Your task to perform on an android device: turn on priority inbox in the gmail app Image 0: 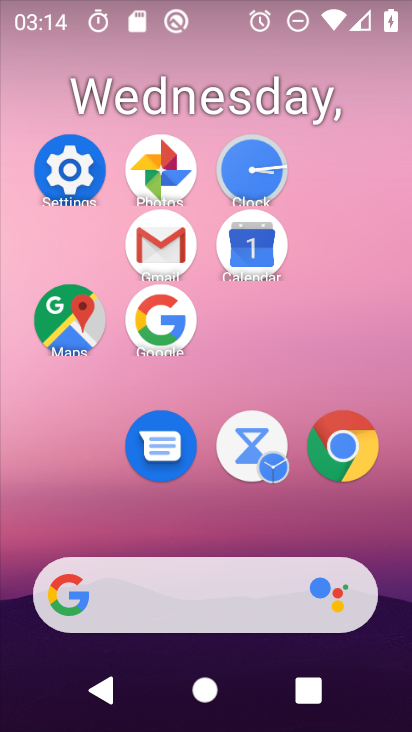
Step 0: click (189, 243)
Your task to perform on an android device: turn on priority inbox in the gmail app Image 1: 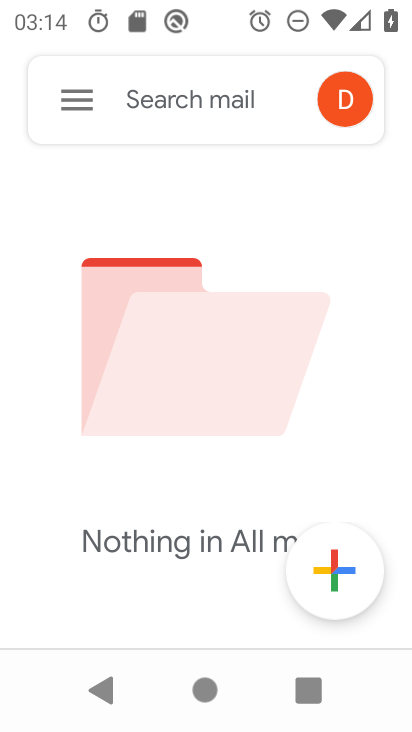
Step 1: click (63, 70)
Your task to perform on an android device: turn on priority inbox in the gmail app Image 2: 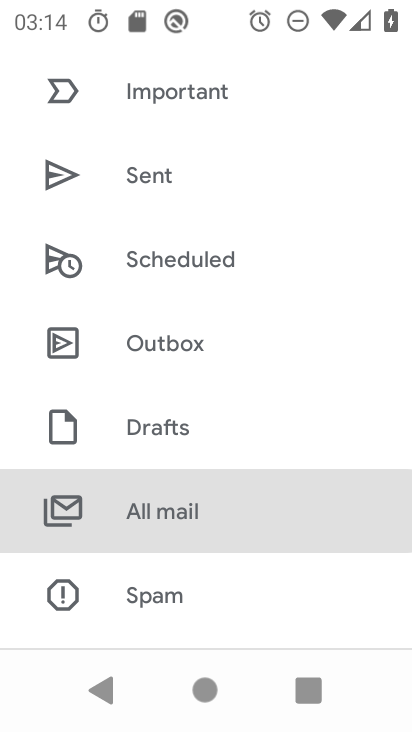
Step 2: drag from (191, 493) to (186, 60)
Your task to perform on an android device: turn on priority inbox in the gmail app Image 3: 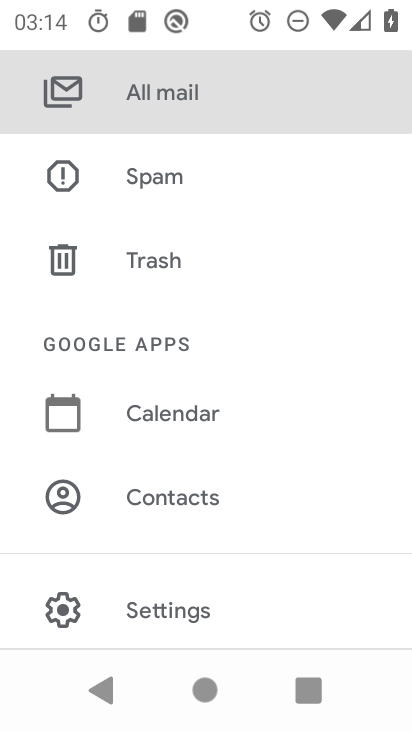
Step 3: click (206, 594)
Your task to perform on an android device: turn on priority inbox in the gmail app Image 4: 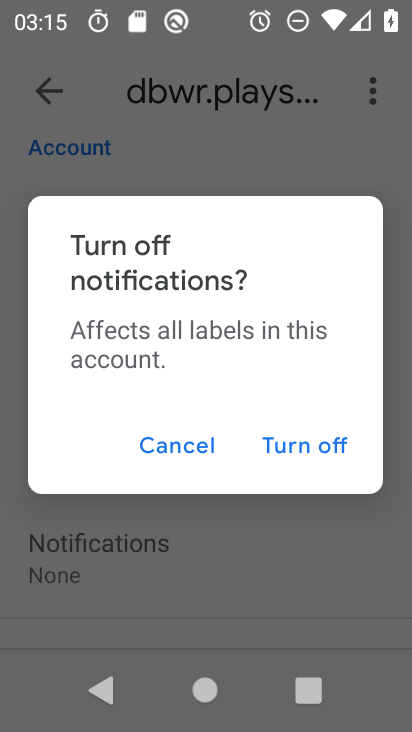
Step 4: click (199, 446)
Your task to perform on an android device: turn on priority inbox in the gmail app Image 5: 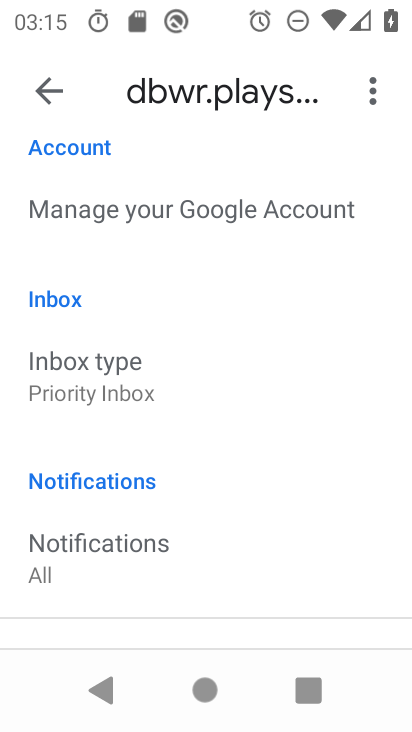
Step 5: task complete